Your task to perform on an android device: Go to privacy settings Image 0: 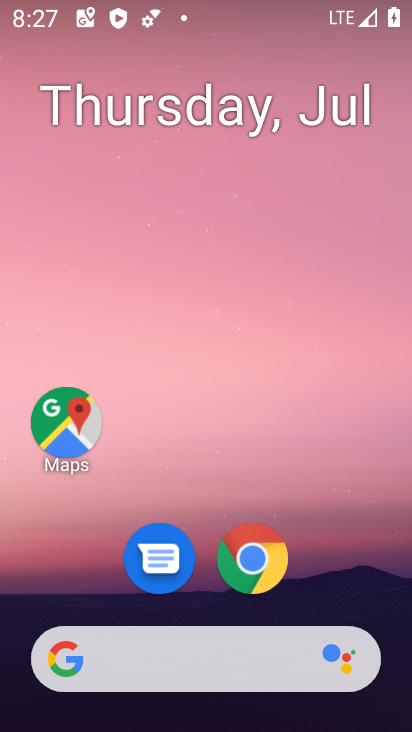
Step 0: drag from (230, 669) to (277, 246)
Your task to perform on an android device: Go to privacy settings Image 1: 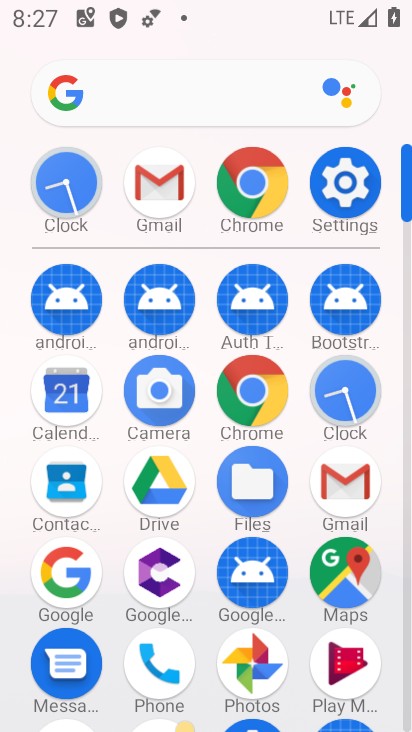
Step 1: click (353, 198)
Your task to perform on an android device: Go to privacy settings Image 2: 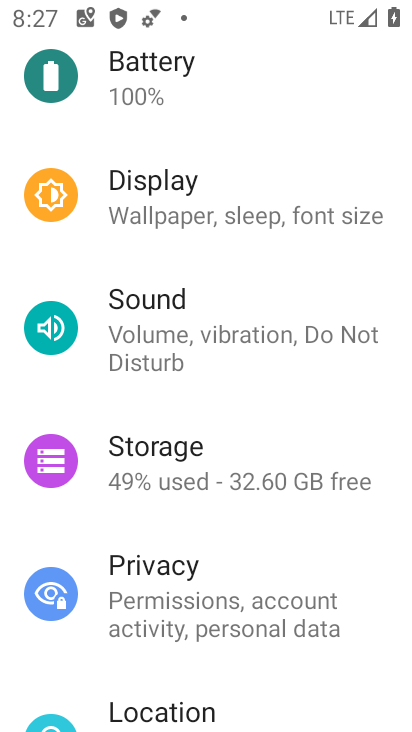
Step 2: drag from (218, 551) to (238, 332)
Your task to perform on an android device: Go to privacy settings Image 3: 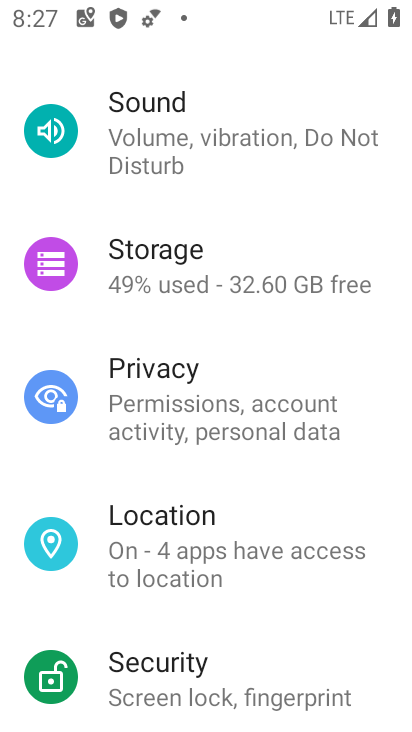
Step 3: click (212, 405)
Your task to perform on an android device: Go to privacy settings Image 4: 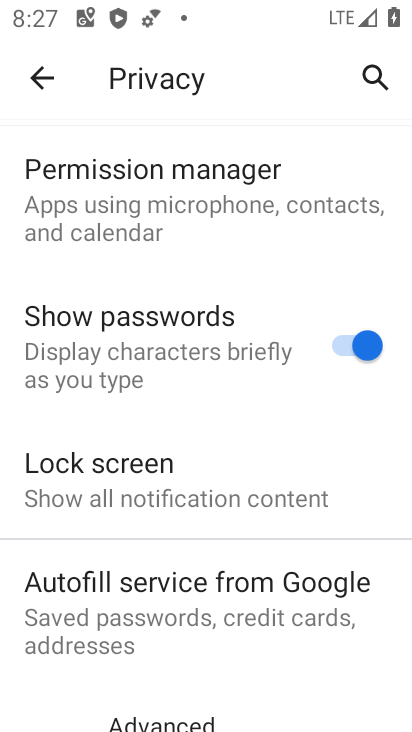
Step 4: drag from (212, 576) to (186, 309)
Your task to perform on an android device: Go to privacy settings Image 5: 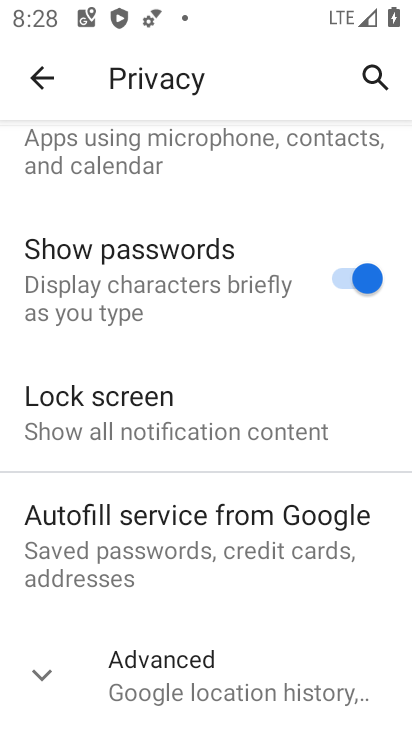
Step 5: click (208, 676)
Your task to perform on an android device: Go to privacy settings Image 6: 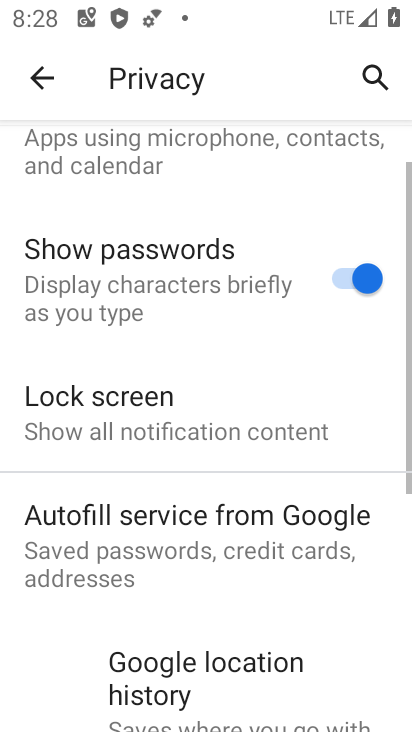
Step 6: task complete